Your task to perform on an android device: Open the web browser Image 0: 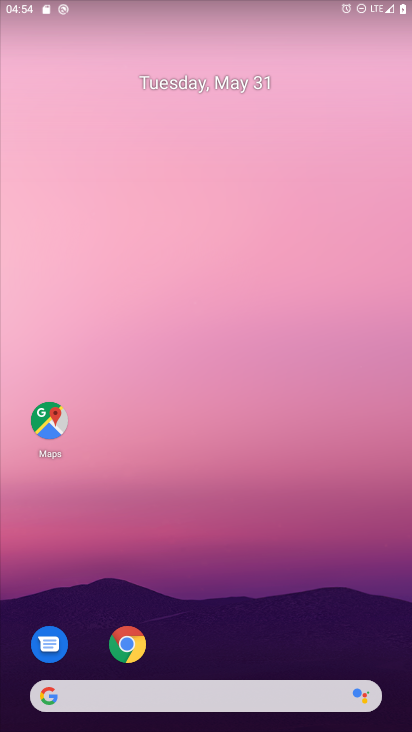
Step 0: click (132, 644)
Your task to perform on an android device: Open the web browser Image 1: 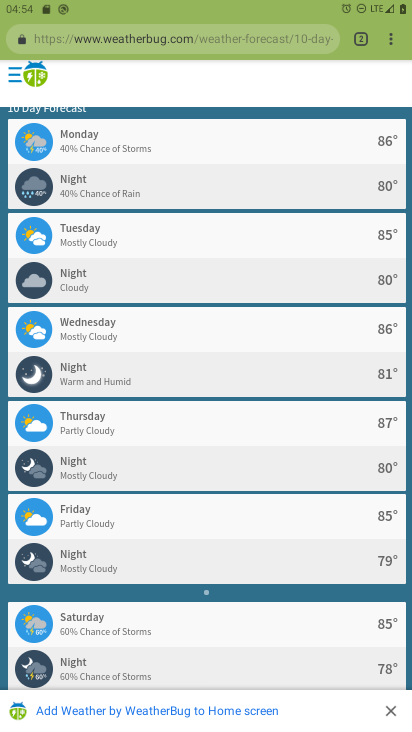
Step 1: task complete